Your task to perform on an android device: Open Chrome and go to settings Image 0: 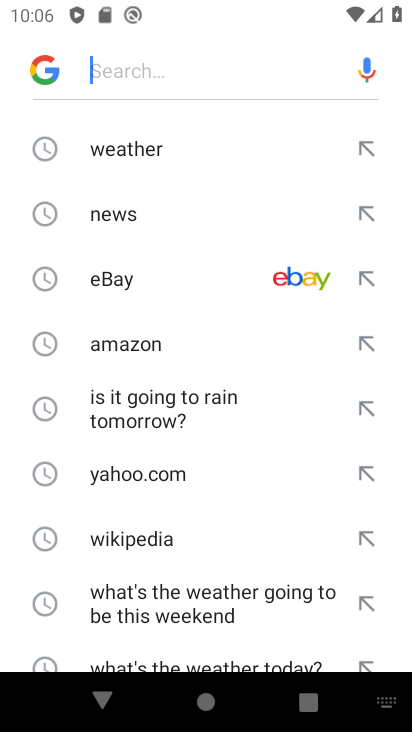
Step 0: press home button
Your task to perform on an android device: Open Chrome and go to settings Image 1: 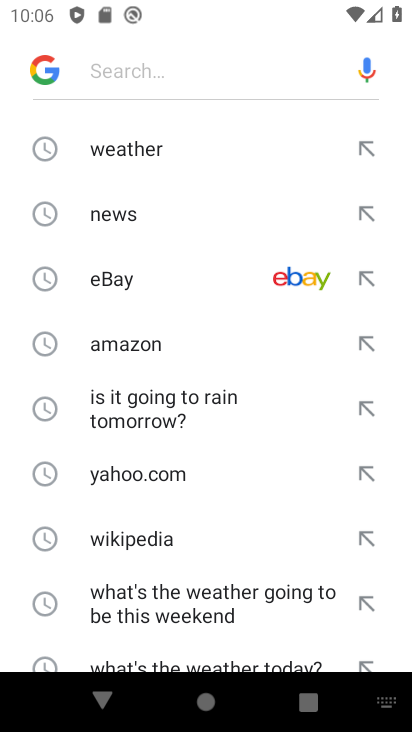
Step 1: press home button
Your task to perform on an android device: Open Chrome and go to settings Image 2: 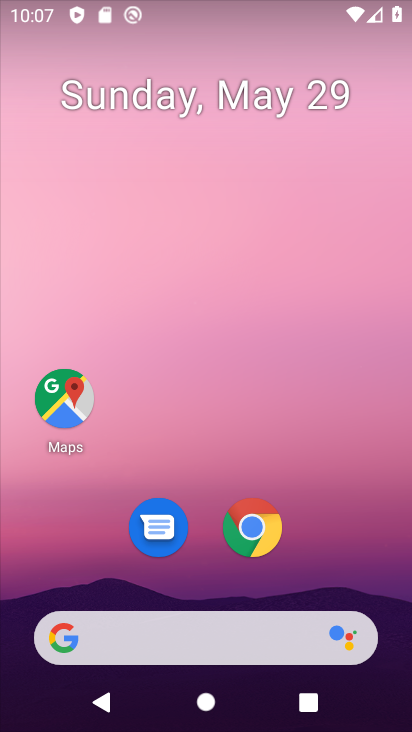
Step 2: drag from (358, 532) to (293, 176)
Your task to perform on an android device: Open Chrome and go to settings Image 3: 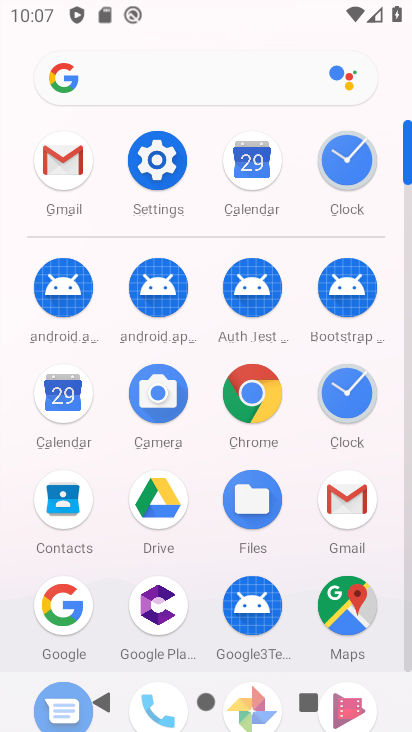
Step 3: click (254, 389)
Your task to perform on an android device: Open Chrome and go to settings Image 4: 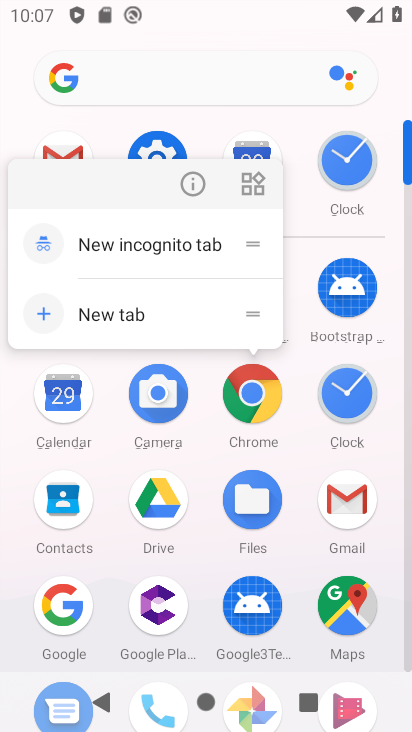
Step 4: click (252, 386)
Your task to perform on an android device: Open Chrome and go to settings Image 5: 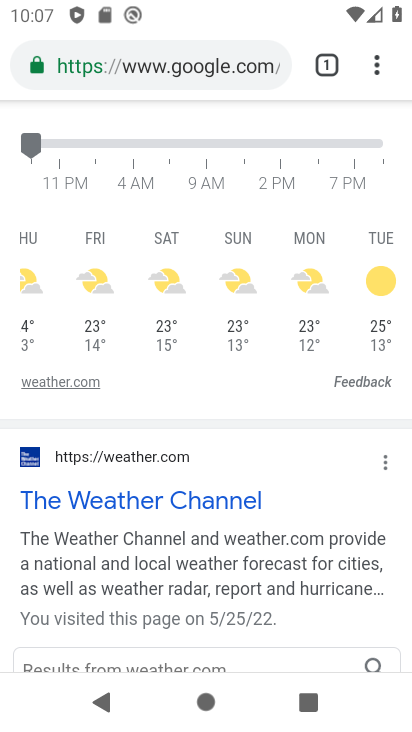
Step 5: task complete